Your task to perform on an android device: Open Maps and search for coffee Image 0: 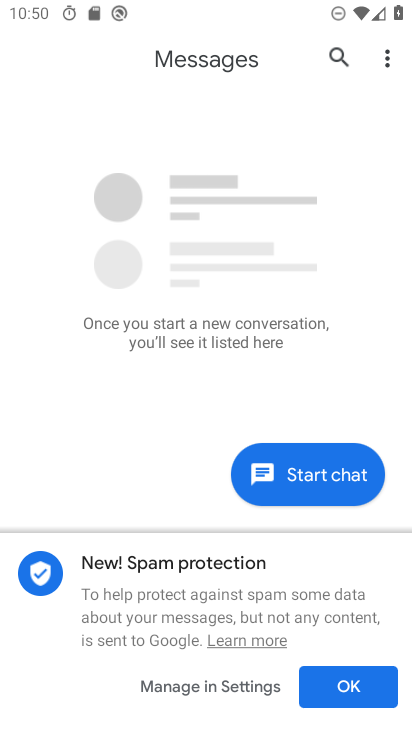
Step 0: press home button
Your task to perform on an android device: Open Maps and search for coffee Image 1: 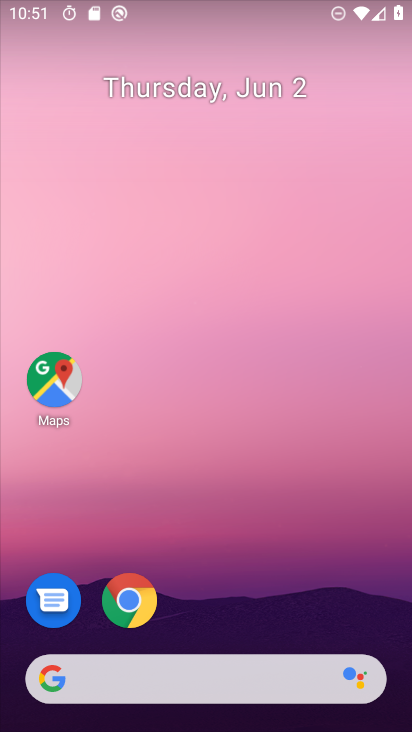
Step 1: click (57, 383)
Your task to perform on an android device: Open Maps and search for coffee Image 2: 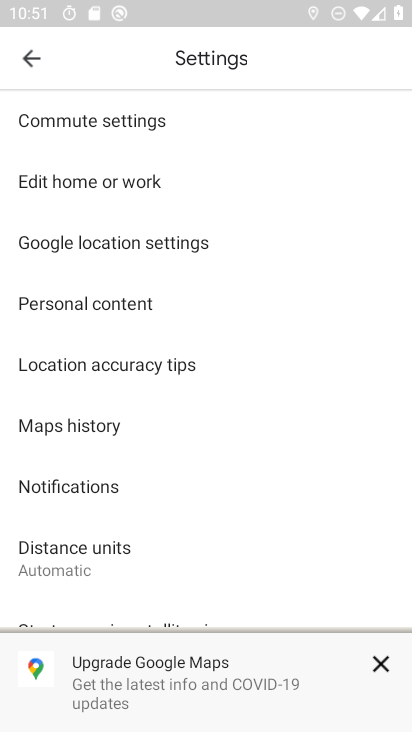
Step 2: press back button
Your task to perform on an android device: Open Maps and search for coffee Image 3: 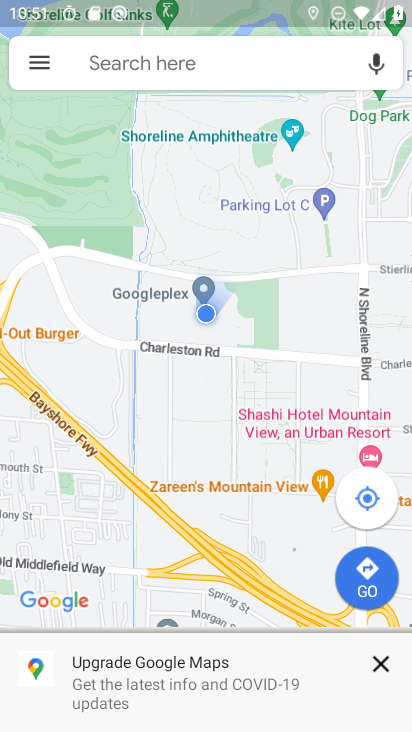
Step 3: click (251, 74)
Your task to perform on an android device: Open Maps and search for coffee Image 4: 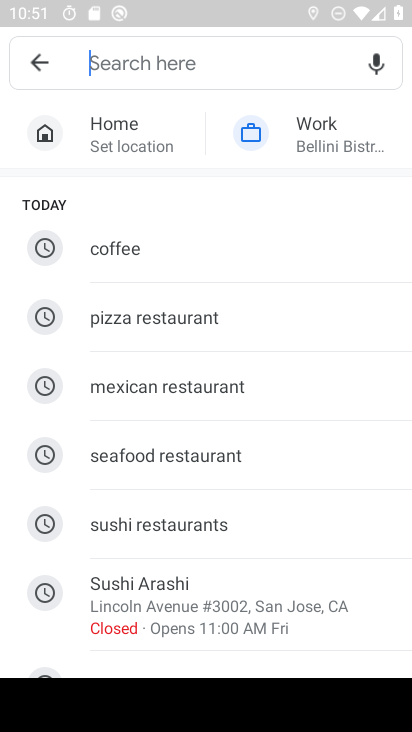
Step 4: click (138, 255)
Your task to perform on an android device: Open Maps and search for coffee Image 5: 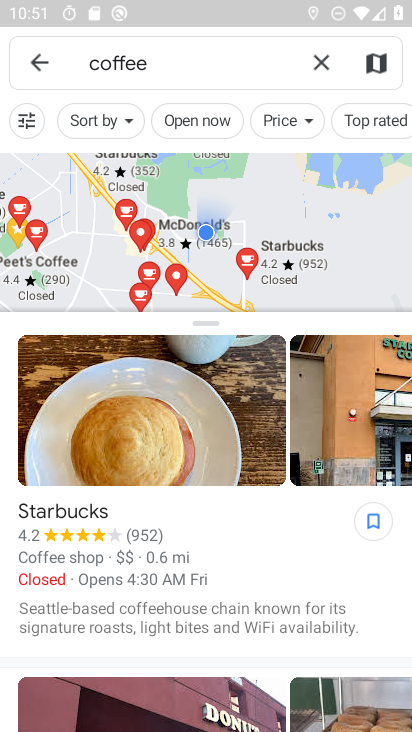
Step 5: task complete